Your task to perform on an android device: Open maps Image 0: 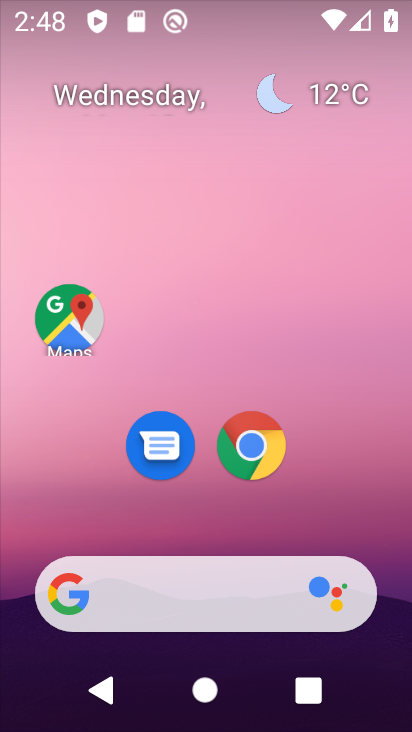
Step 0: click (54, 339)
Your task to perform on an android device: Open maps Image 1: 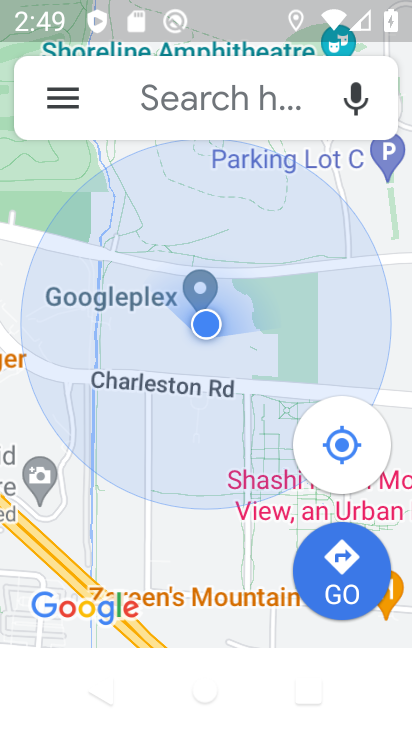
Step 1: task complete